Your task to perform on an android device: add a label to a message in the gmail app Image 0: 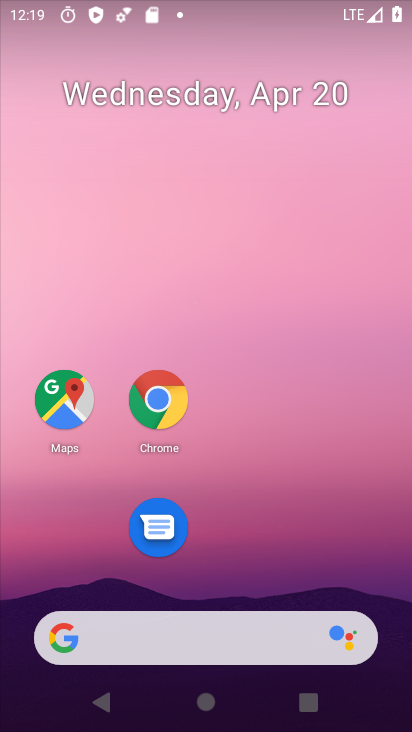
Step 0: drag from (250, 675) to (262, 156)
Your task to perform on an android device: add a label to a message in the gmail app Image 1: 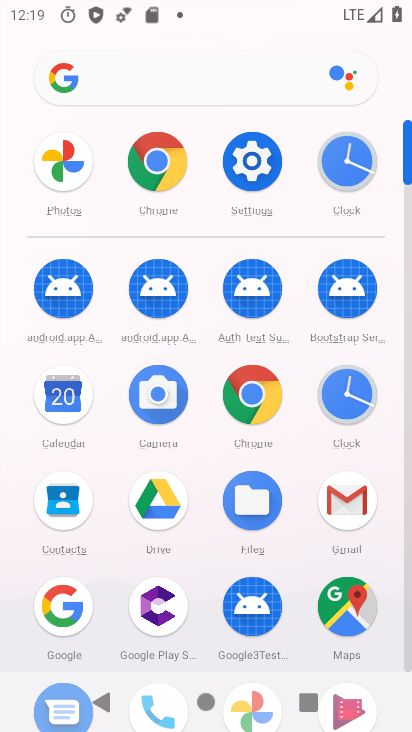
Step 1: click (342, 493)
Your task to perform on an android device: add a label to a message in the gmail app Image 2: 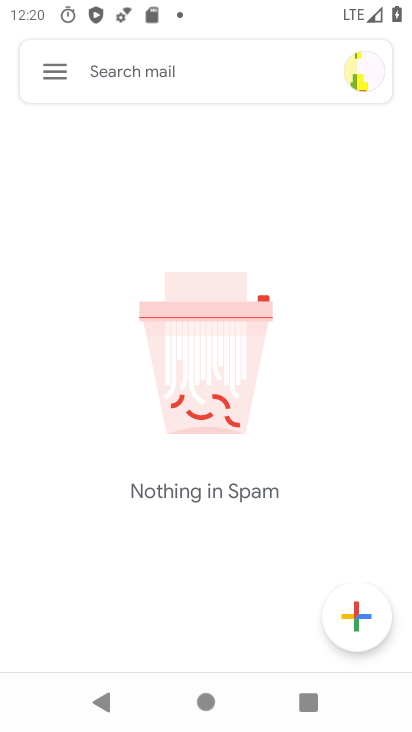
Step 2: click (39, 65)
Your task to perform on an android device: add a label to a message in the gmail app Image 3: 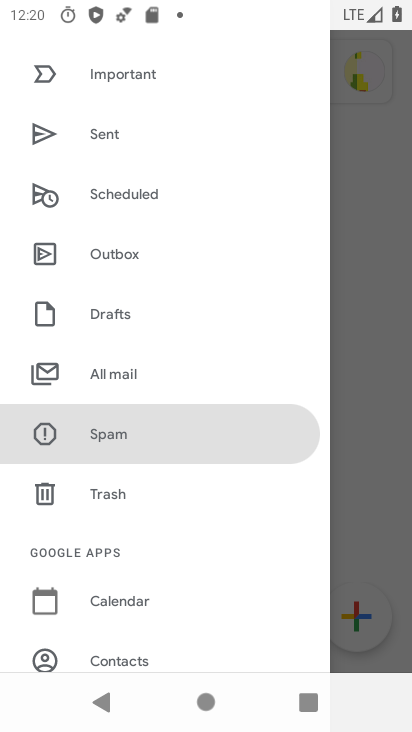
Step 3: drag from (128, 531) to (266, 321)
Your task to perform on an android device: add a label to a message in the gmail app Image 4: 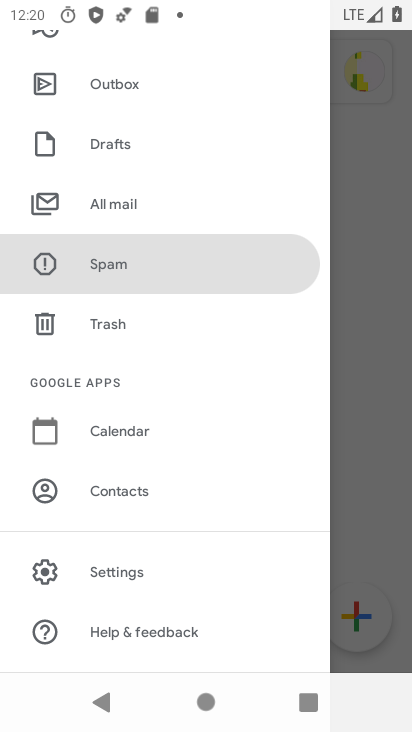
Step 4: click (121, 567)
Your task to perform on an android device: add a label to a message in the gmail app Image 5: 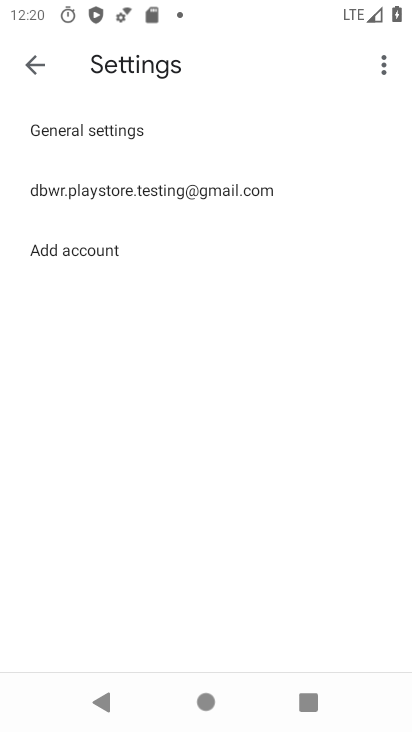
Step 5: click (94, 188)
Your task to perform on an android device: add a label to a message in the gmail app Image 6: 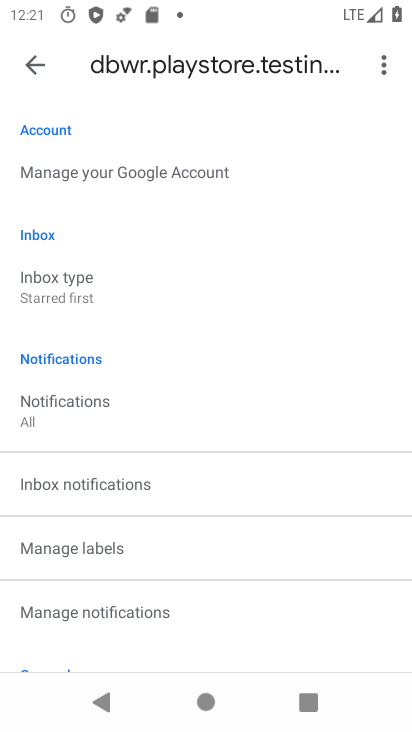
Step 6: click (86, 551)
Your task to perform on an android device: add a label to a message in the gmail app Image 7: 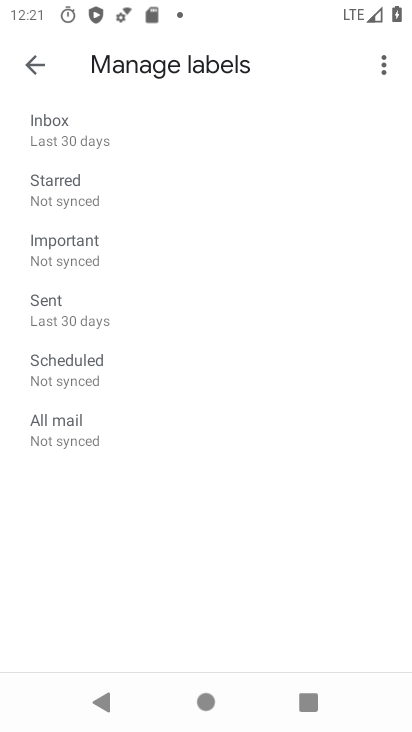
Step 7: click (115, 187)
Your task to perform on an android device: add a label to a message in the gmail app Image 8: 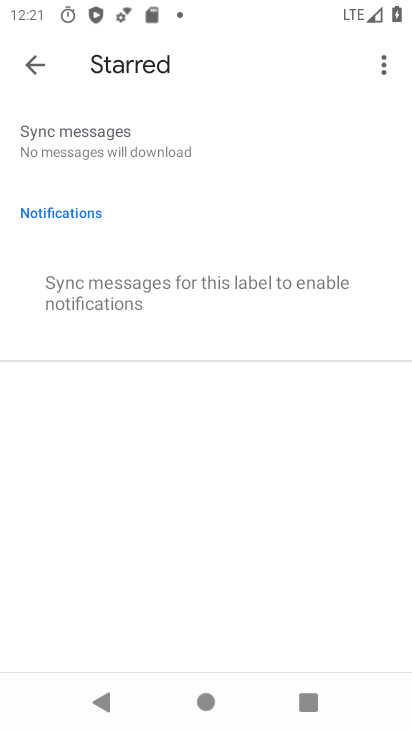
Step 8: task complete